Your task to perform on an android device: turn on priority inbox in the gmail app Image 0: 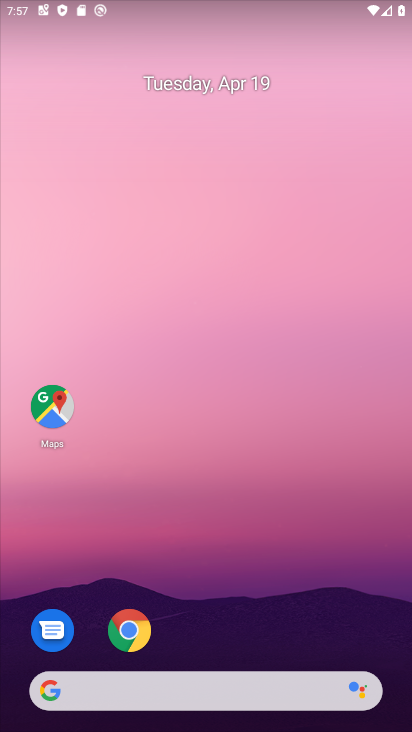
Step 0: drag from (204, 412) to (250, 14)
Your task to perform on an android device: turn on priority inbox in the gmail app Image 1: 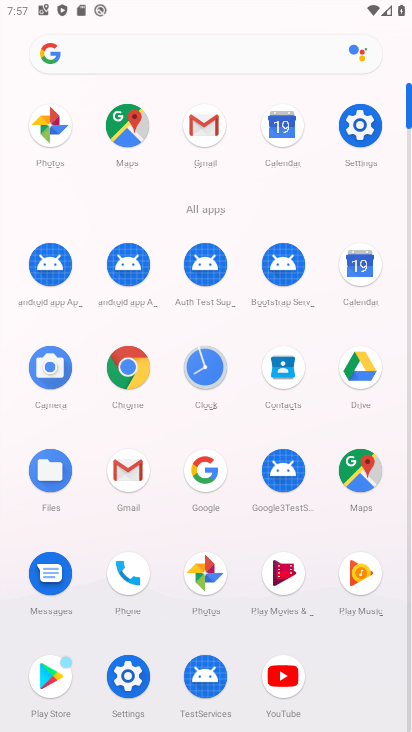
Step 1: click (207, 121)
Your task to perform on an android device: turn on priority inbox in the gmail app Image 2: 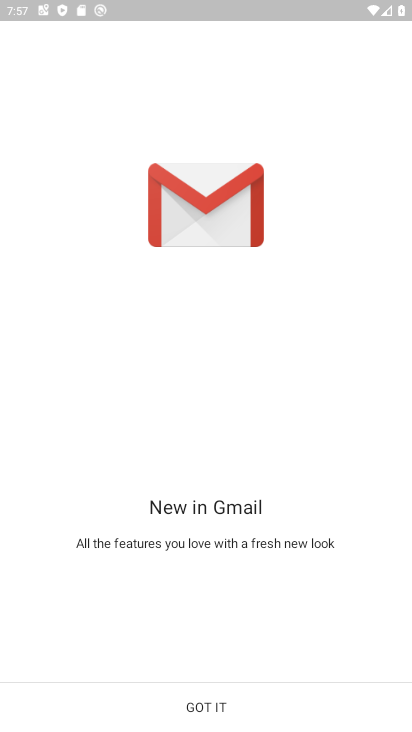
Step 2: click (223, 705)
Your task to perform on an android device: turn on priority inbox in the gmail app Image 3: 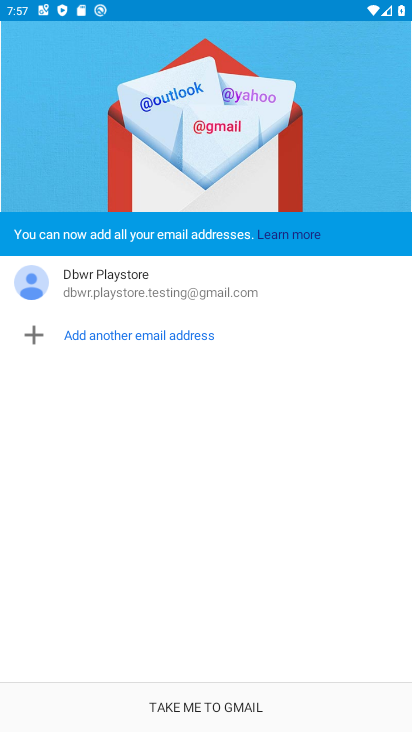
Step 3: click (184, 702)
Your task to perform on an android device: turn on priority inbox in the gmail app Image 4: 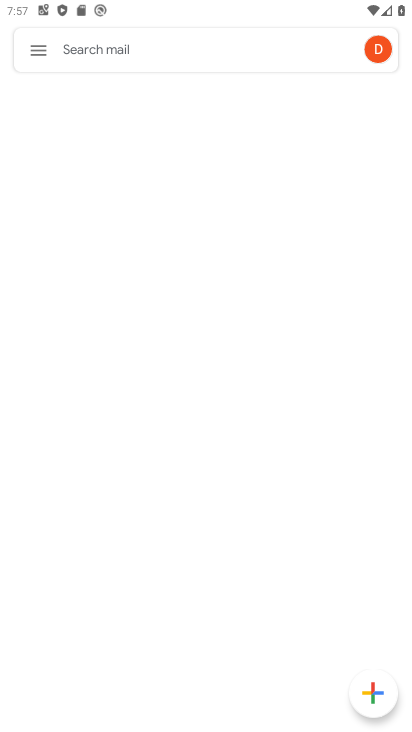
Step 4: click (31, 51)
Your task to perform on an android device: turn on priority inbox in the gmail app Image 5: 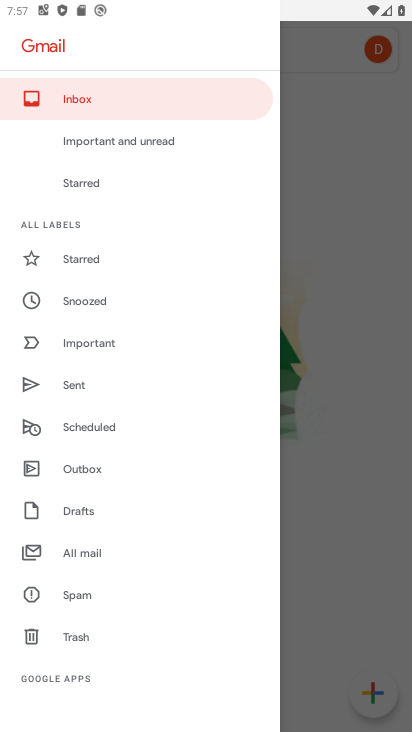
Step 5: drag from (149, 249) to (165, 21)
Your task to perform on an android device: turn on priority inbox in the gmail app Image 6: 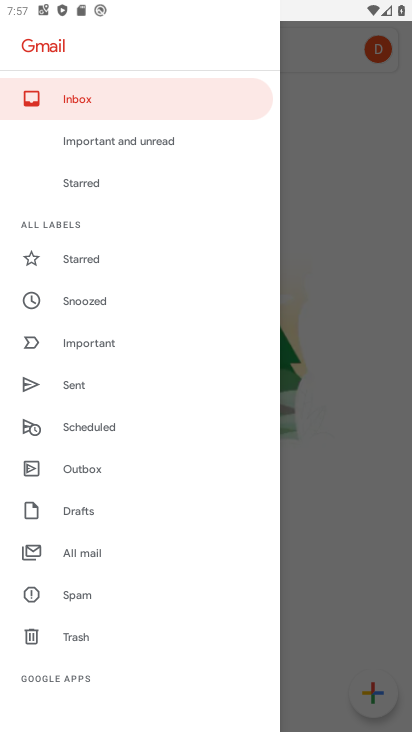
Step 6: drag from (102, 604) to (156, 100)
Your task to perform on an android device: turn on priority inbox in the gmail app Image 7: 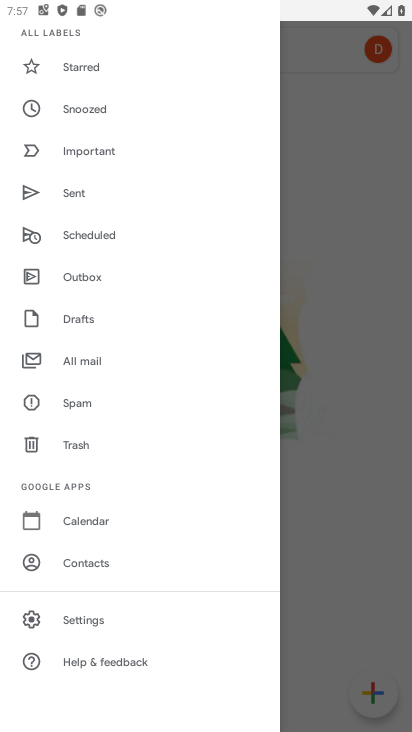
Step 7: click (84, 617)
Your task to perform on an android device: turn on priority inbox in the gmail app Image 8: 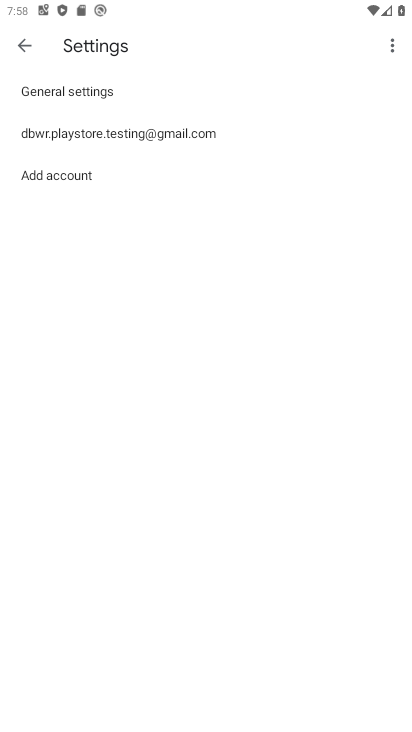
Step 8: click (137, 131)
Your task to perform on an android device: turn on priority inbox in the gmail app Image 9: 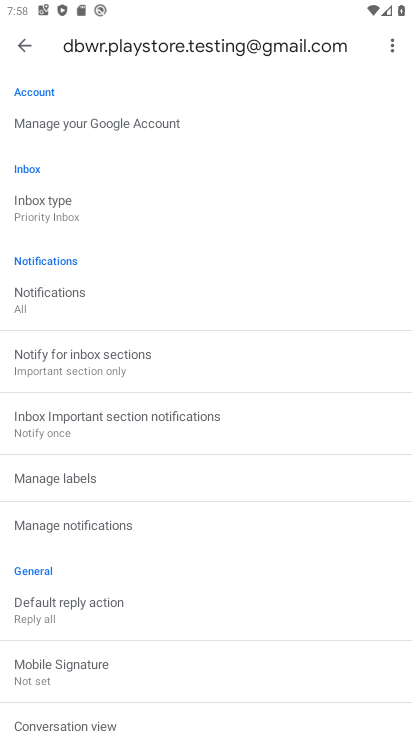
Step 9: click (78, 220)
Your task to perform on an android device: turn on priority inbox in the gmail app Image 10: 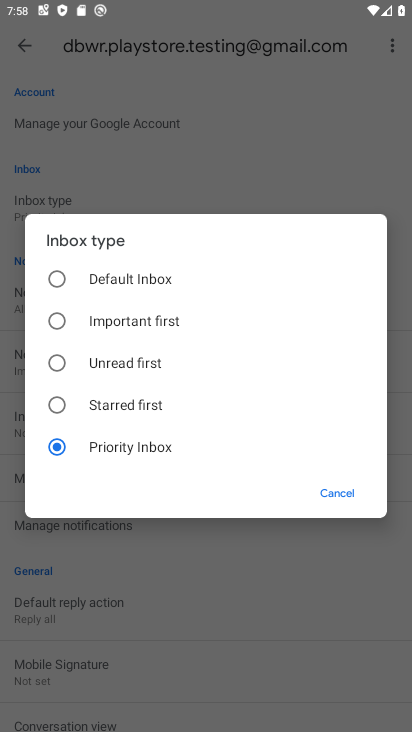
Step 10: click (96, 449)
Your task to perform on an android device: turn on priority inbox in the gmail app Image 11: 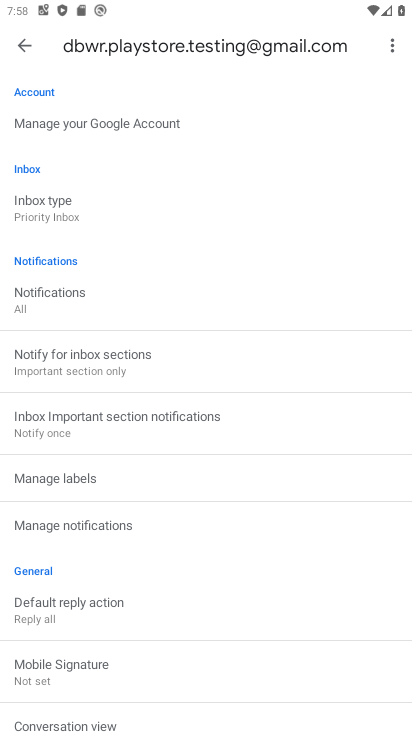
Step 11: task complete